Your task to perform on an android device: toggle sleep mode Image 0: 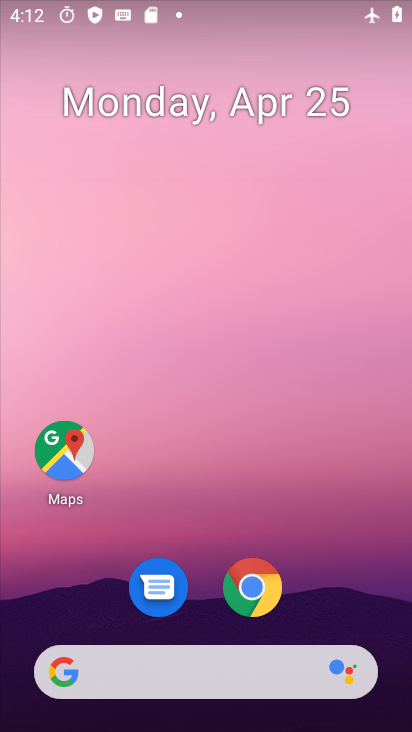
Step 0: drag from (358, 337) to (358, 71)
Your task to perform on an android device: toggle sleep mode Image 1: 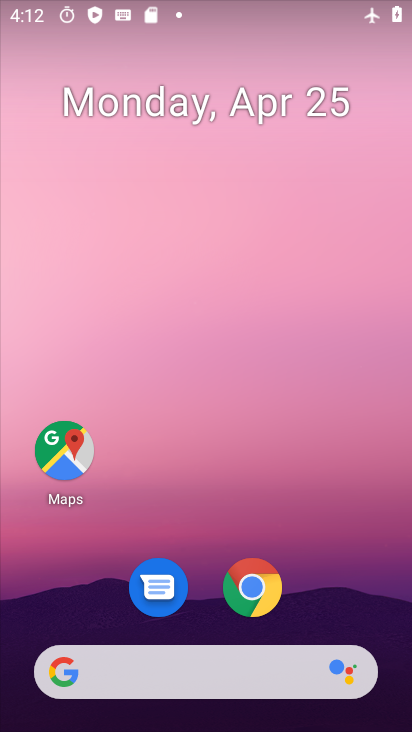
Step 1: drag from (348, 477) to (378, 3)
Your task to perform on an android device: toggle sleep mode Image 2: 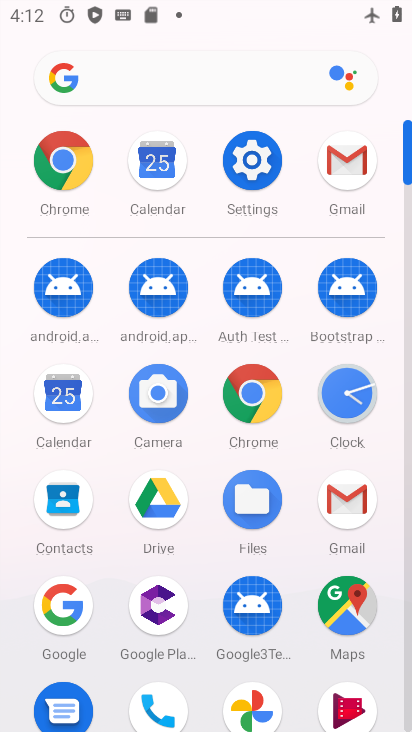
Step 2: click (253, 159)
Your task to perform on an android device: toggle sleep mode Image 3: 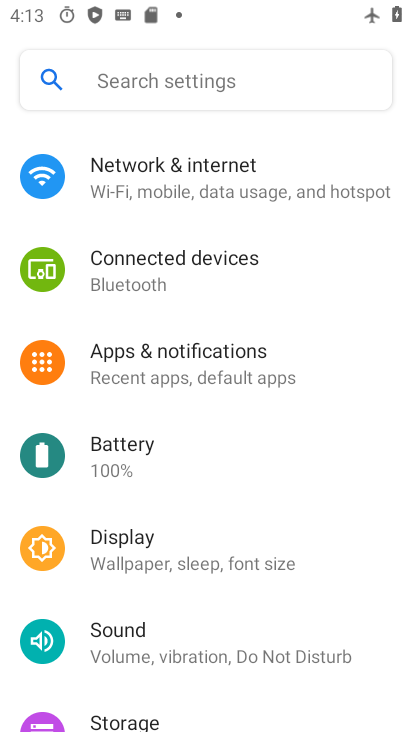
Step 3: click (171, 556)
Your task to perform on an android device: toggle sleep mode Image 4: 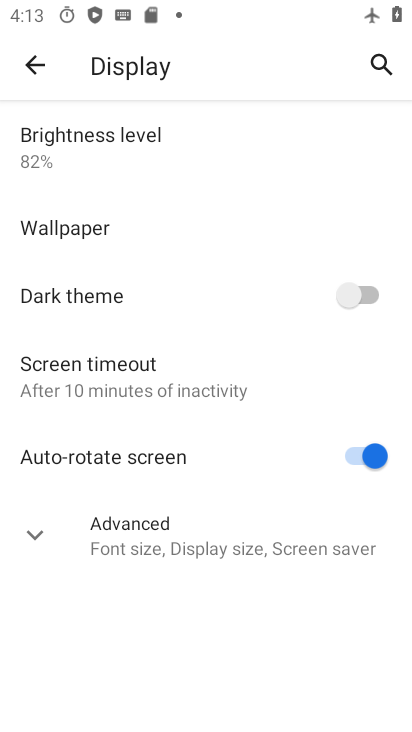
Step 4: click (132, 376)
Your task to perform on an android device: toggle sleep mode Image 5: 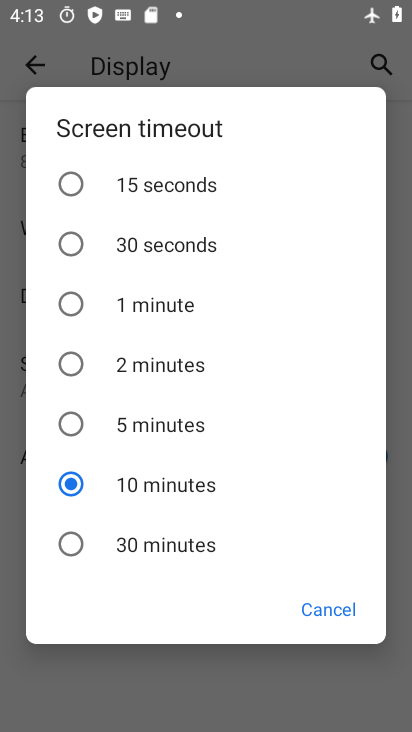
Step 5: click (135, 539)
Your task to perform on an android device: toggle sleep mode Image 6: 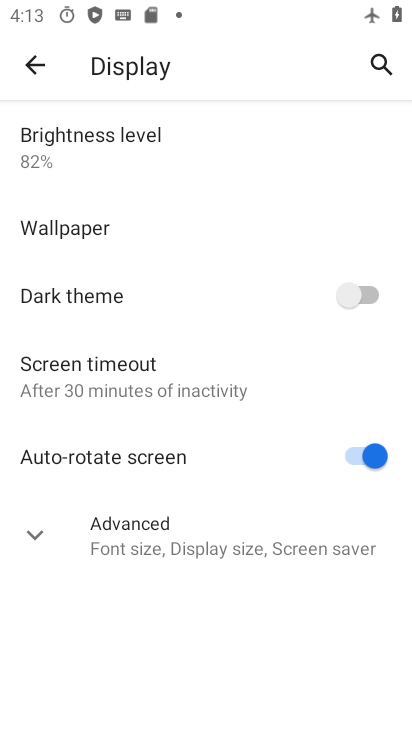
Step 6: task complete